Your task to perform on an android device: open app "AliExpress" Image 0: 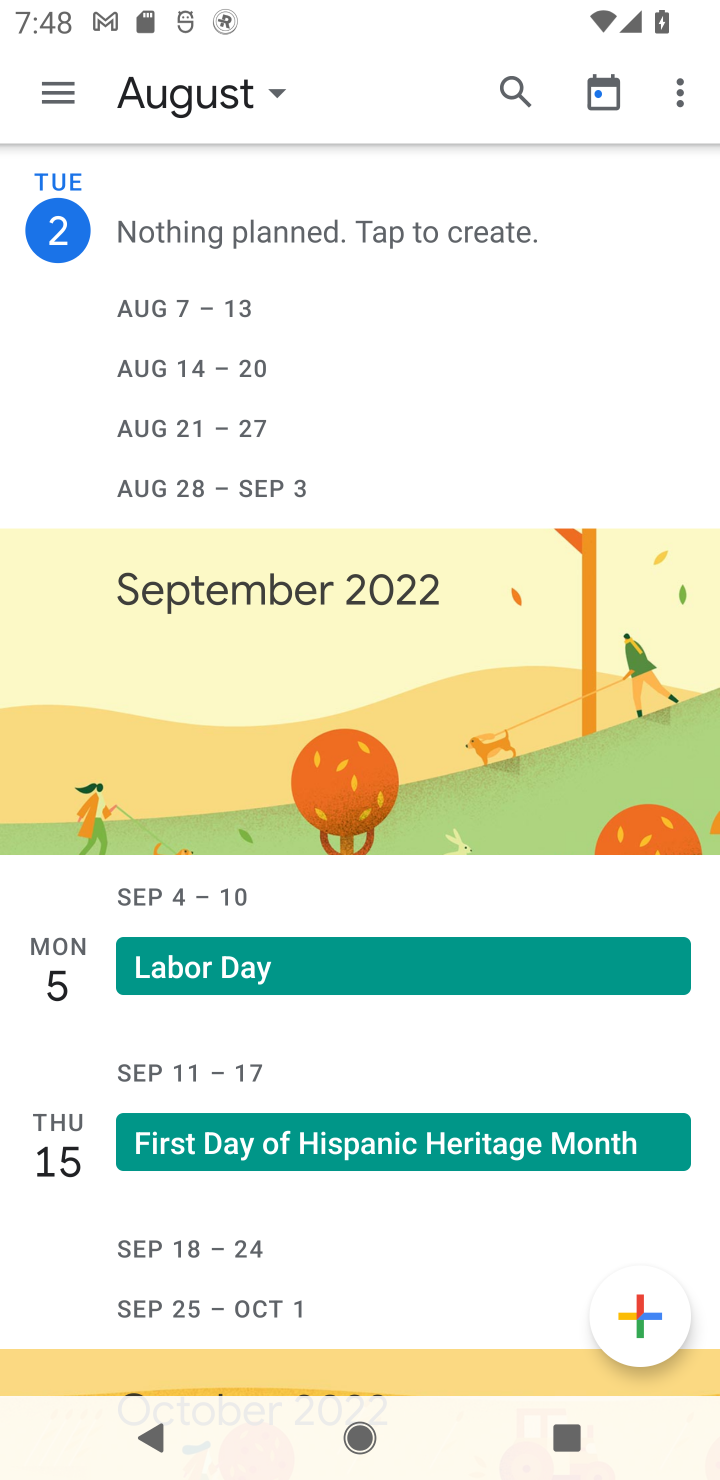
Step 0: press home button
Your task to perform on an android device: open app "AliExpress" Image 1: 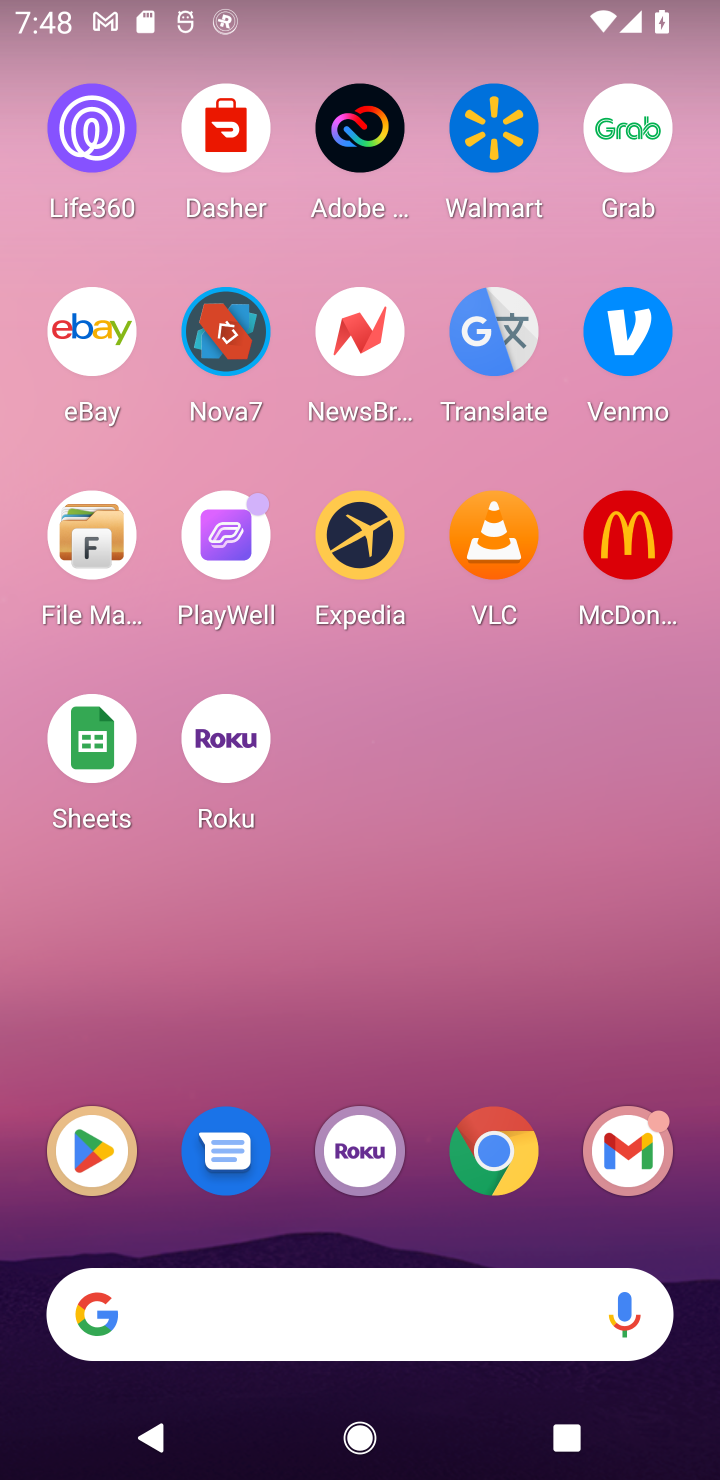
Step 1: click (91, 1159)
Your task to perform on an android device: open app "AliExpress" Image 2: 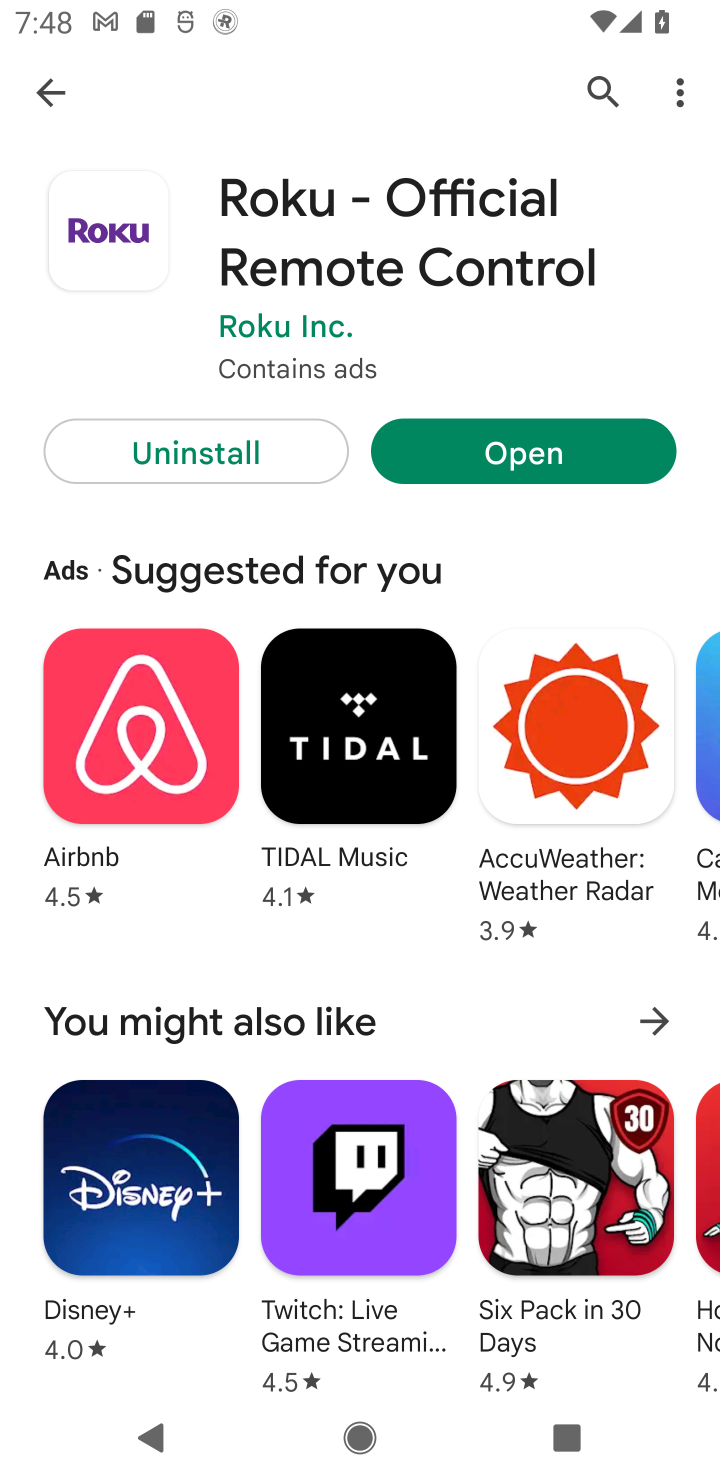
Step 2: click (593, 91)
Your task to perform on an android device: open app "AliExpress" Image 3: 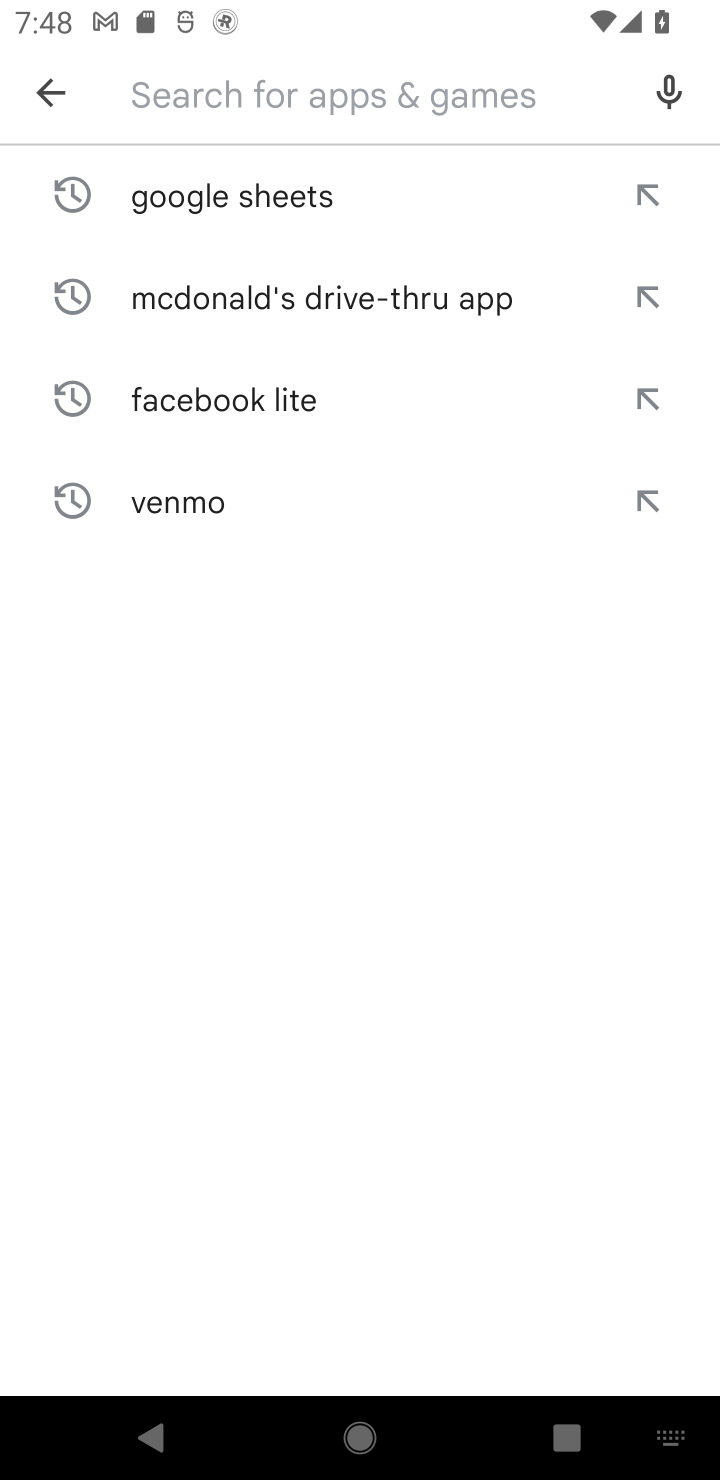
Step 3: type "AliExpress"
Your task to perform on an android device: open app "AliExpress" Image 4: 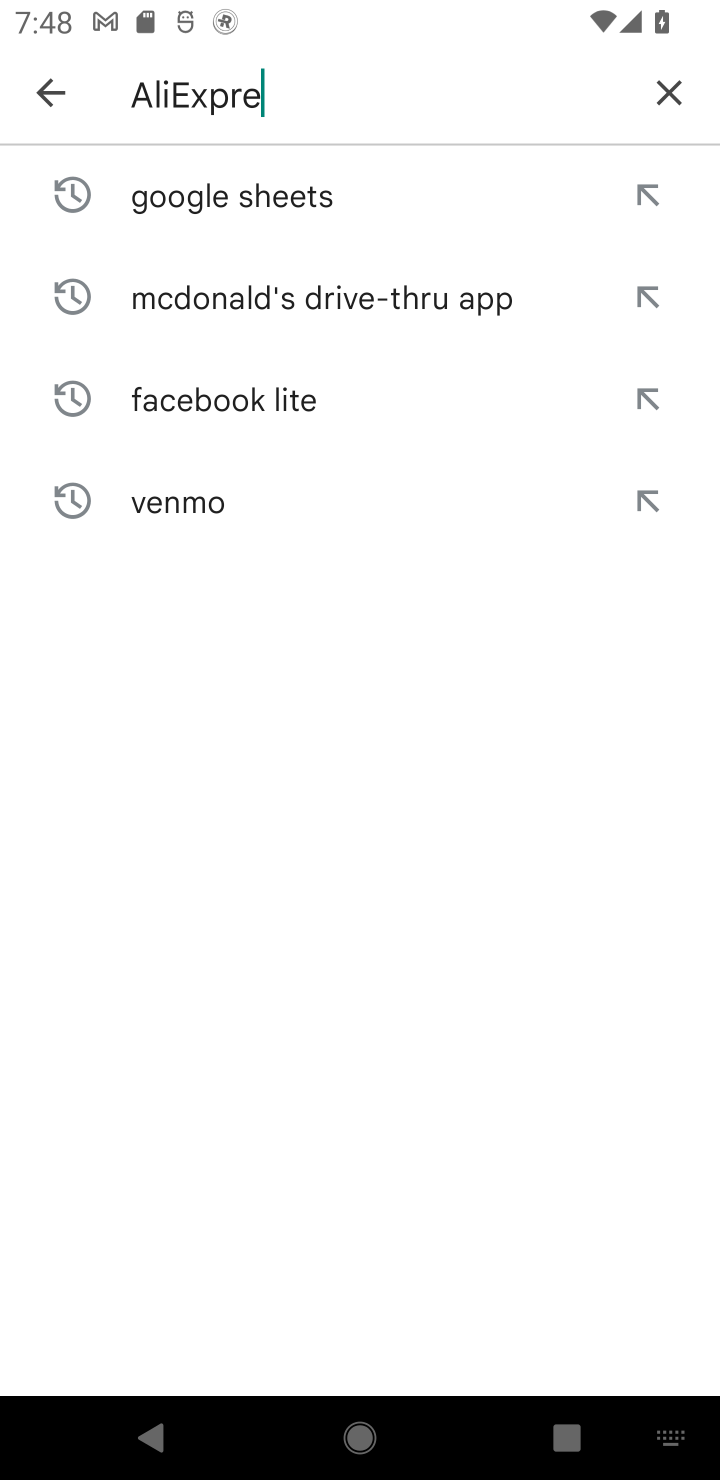
Step 4: type ""
Your task to perform on an android device: open app "AliExpress" Image 5: 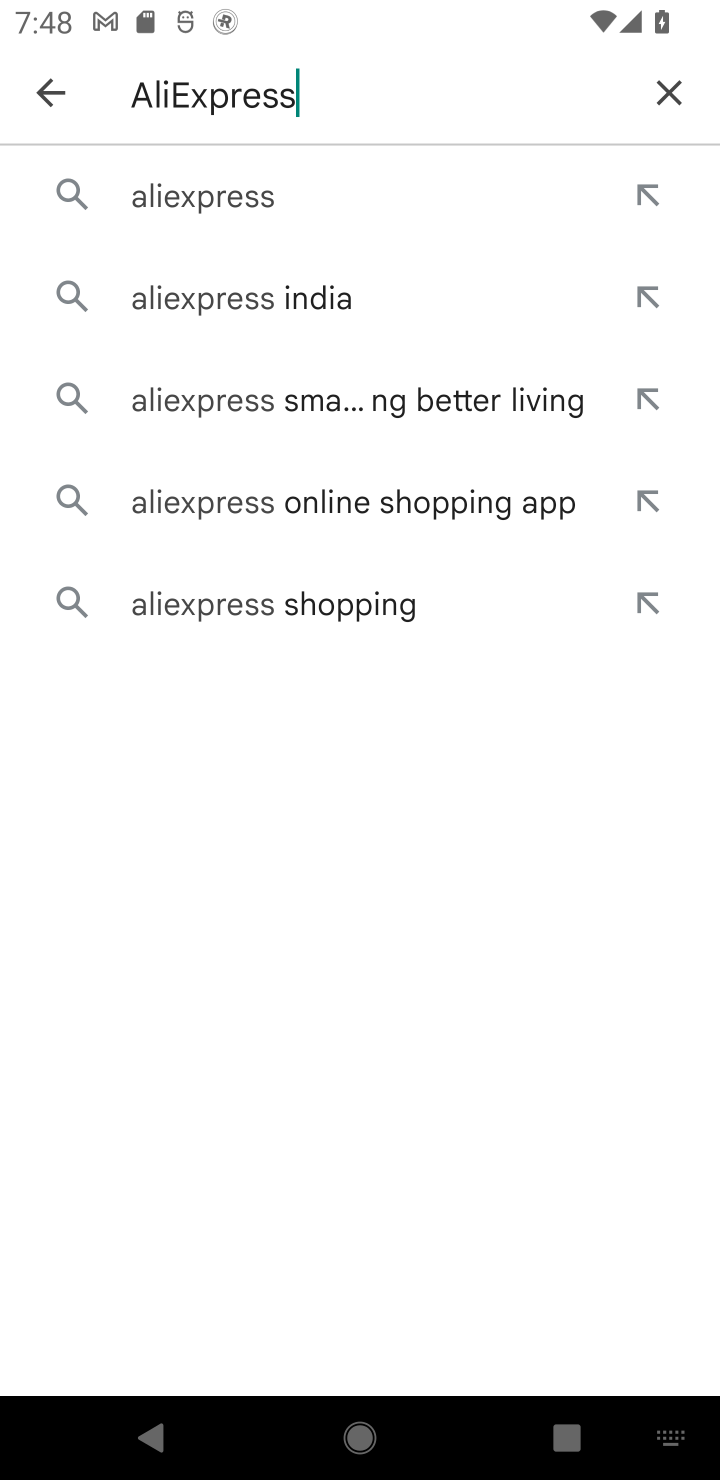
Step 5: click (188, 197)
Your task to perform on an android device: open app "AliExpress" Image 6: 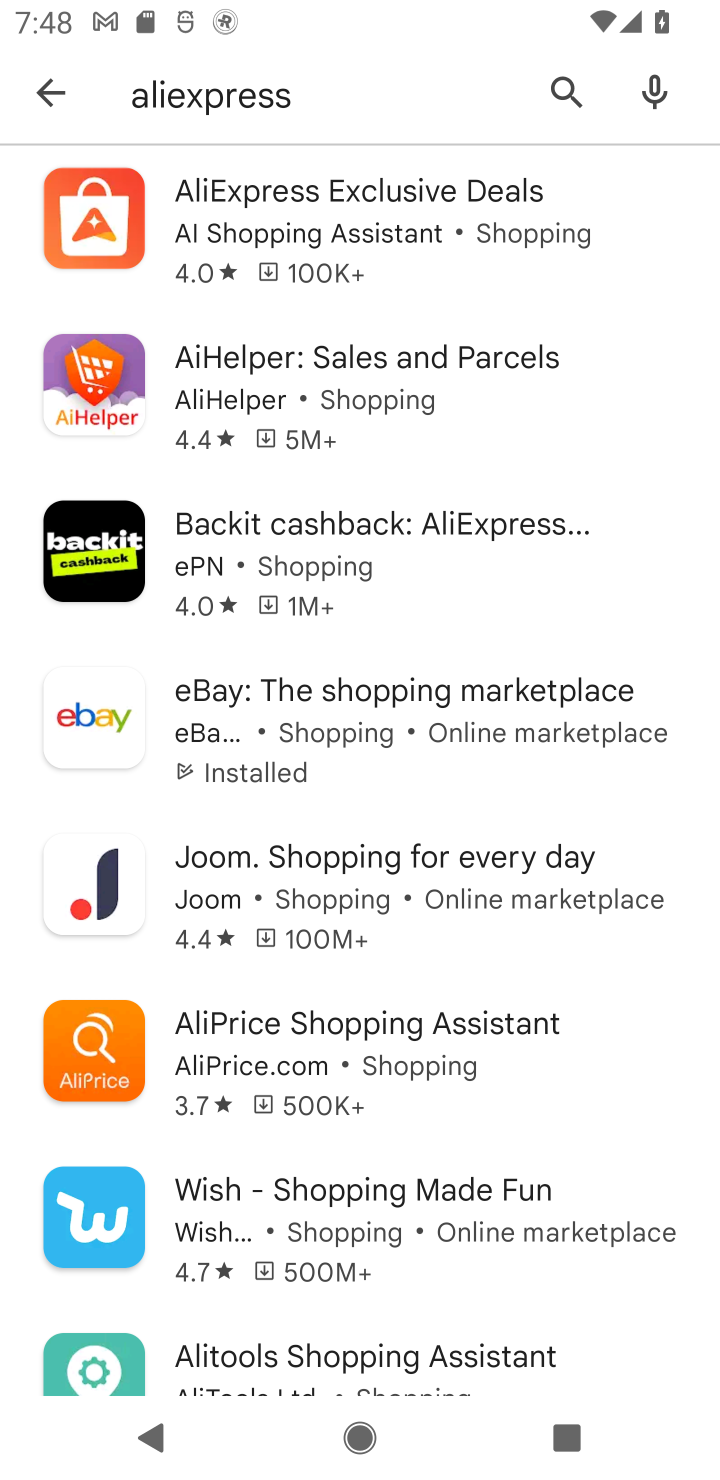
Step 6: click (403, 219)
Your task to perform on an android device: open app "AliExpress" Image 7: 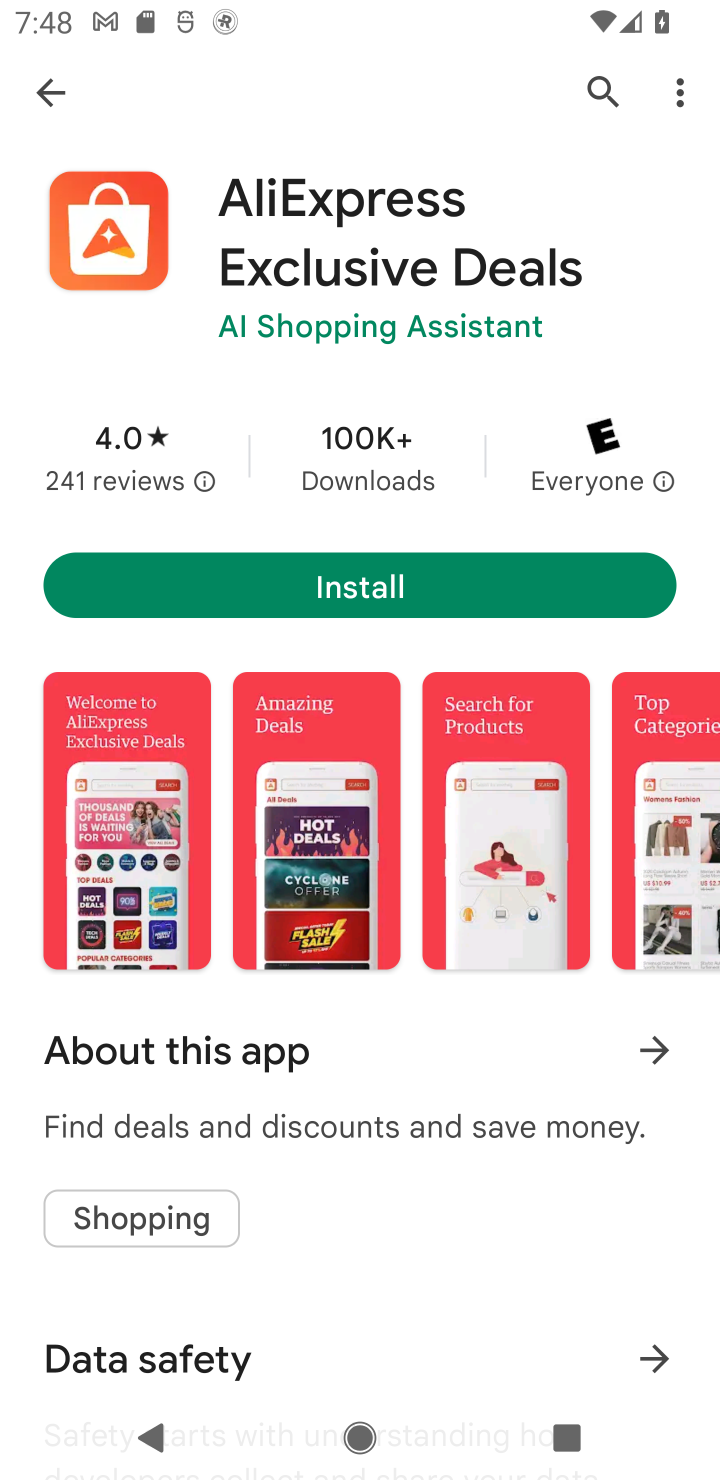
Step 7: task complete